Your task to perform on an android device: show emergency info Image 0: 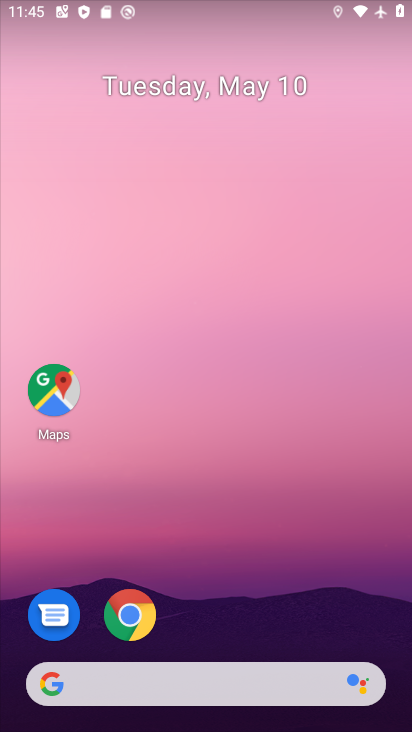
Step 0: drag from (250, 564) to (230, 1)
Your task to perform on an android device: show emergency info Image 1: 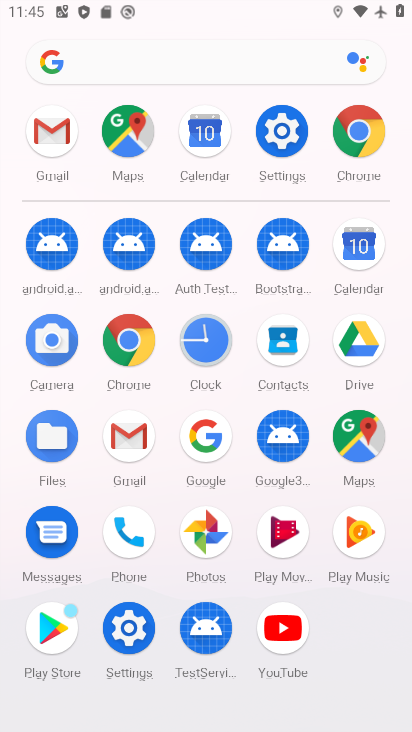
Step 1: click (280, 127)
Your task to perform on an android device: show emergency info Image 2: 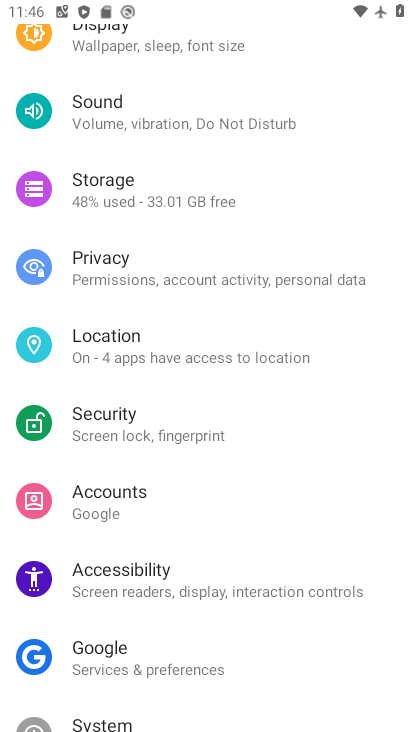
Step 2: drag from (252, 467) to (245, 62)
Your task to perform on an android device: show emergency info Image 3: 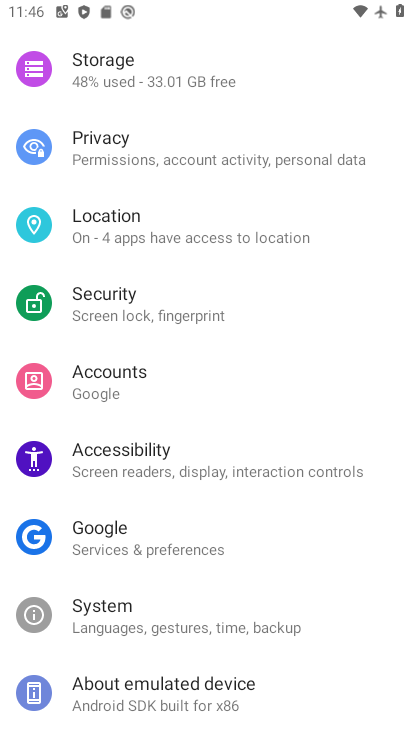
Step 3: drag from (235, 512) to (257, 165)
Your task to perform on an android device: show emergency info Image 4: 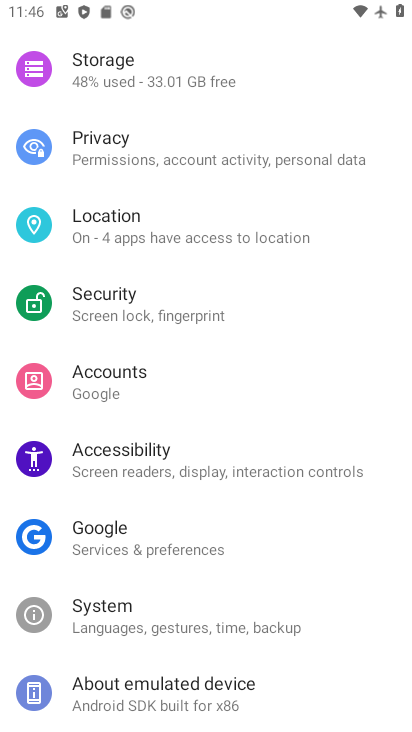
Step 4: click (170, 697)
Your task to perform on an android device: show emergency info Image 5: 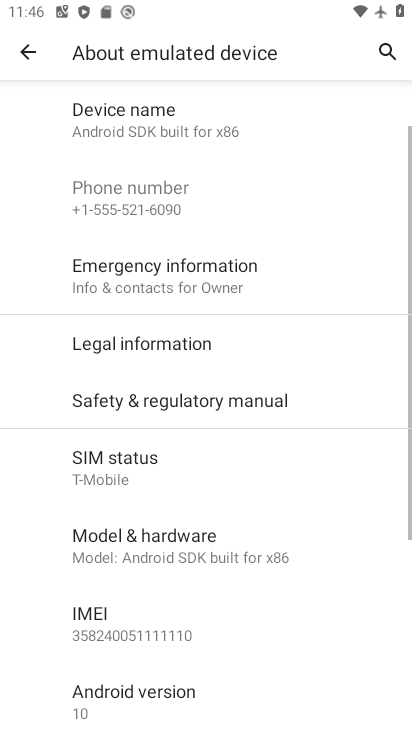
Step 5: drag from (231, 507) to (270, 178)
Your task to perform on an android device: show emergency info Image 6: 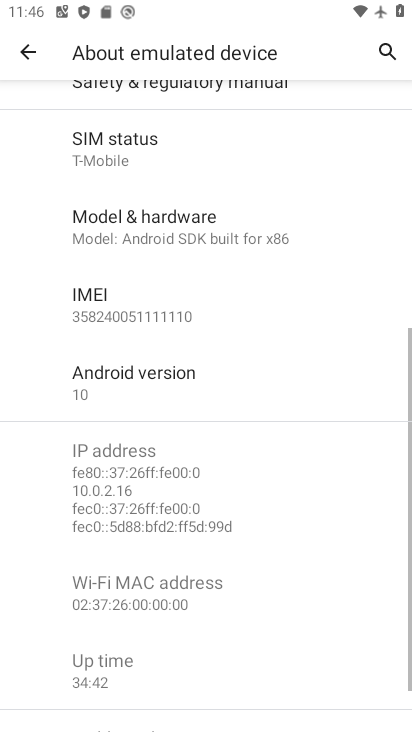
Step 6: drag from (271, 181) to (279, 574)
Your task to perform on an android device: show emergency info Image 7: 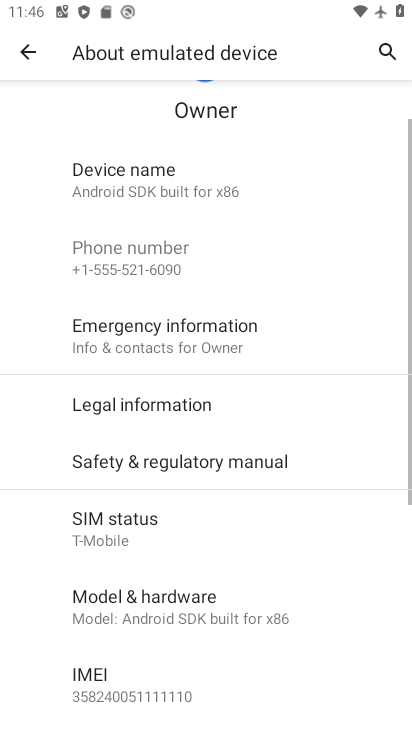
Step 7: click (261, 337)
Your task to perform on an android device: show emergency info Image 8: 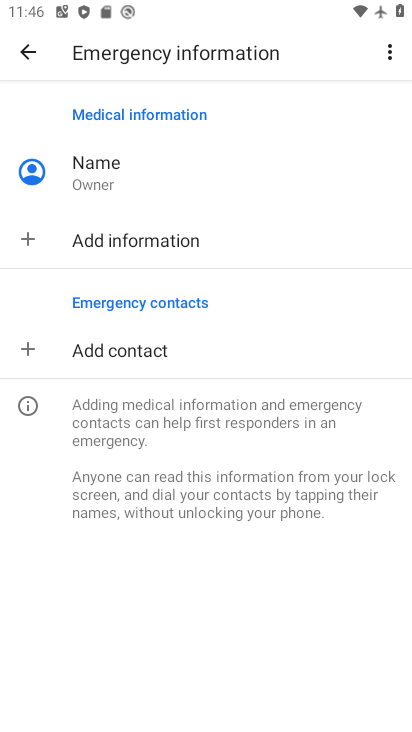
Step 8: task complete